Your task to perform on an android device: change timer sound Image 0: 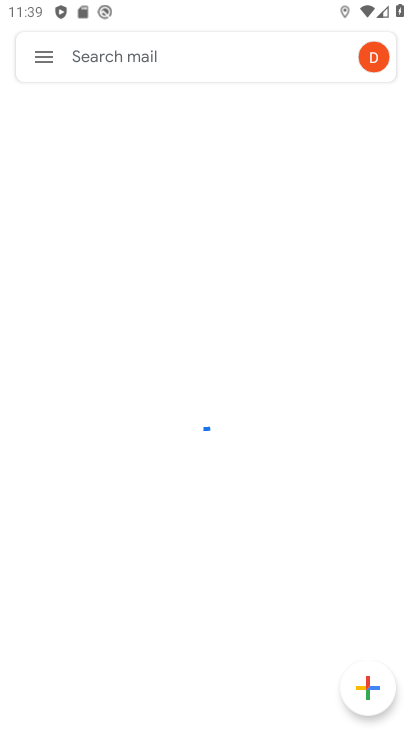
Step 0: press home button
Your task to perform on an android device: change timer sound Image 1: 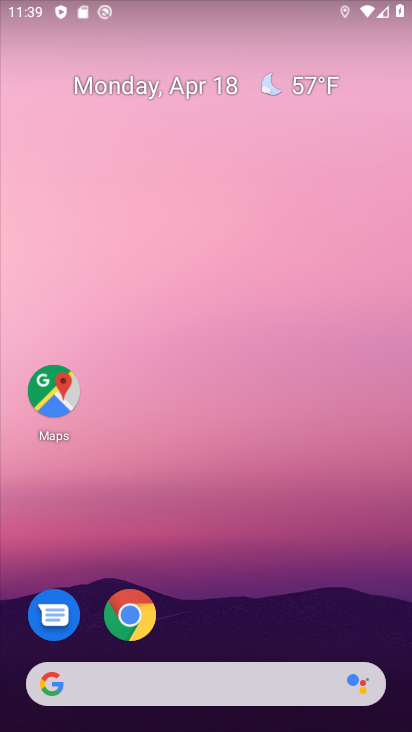
Step 1: drag from (227, 638) to (222, 253)
Your task to perform on an android device: change timer sound Image 2: 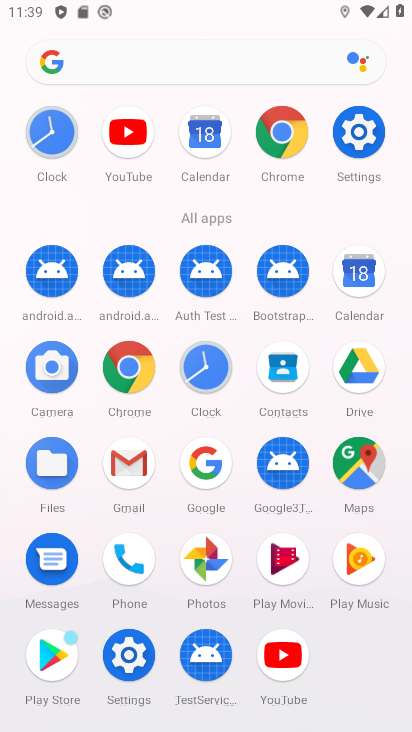
Step 2: click (196, 364)
Your task to perform on an android device: change timer sound Image 3: 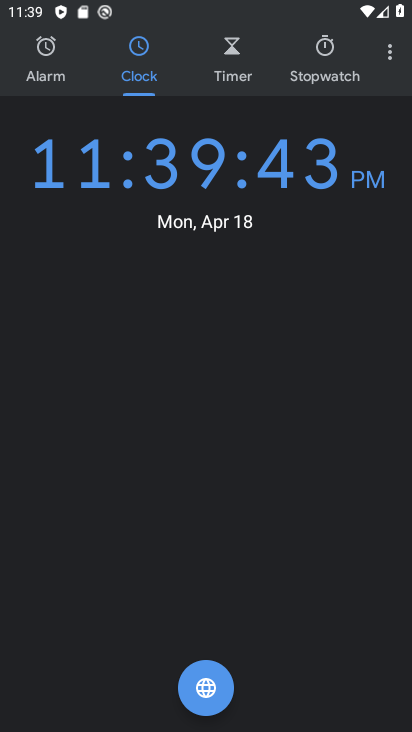
Step 3: click (389, 53)
Your task to perform on an android device: change timer sound Image 4: 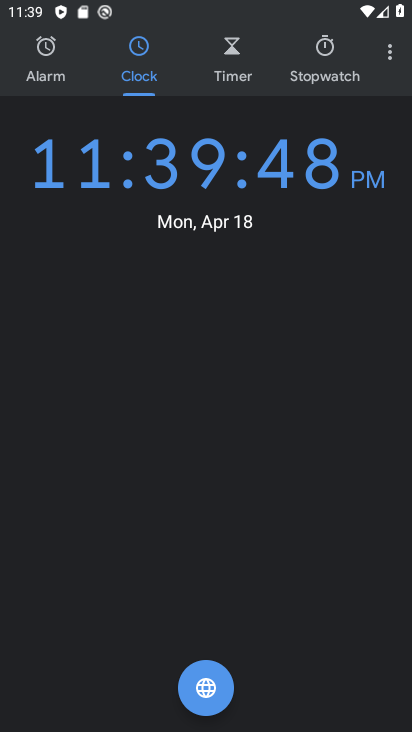
Step 4: click (394, 63)
Your task to perform on an android device: change timer sound Image 5: 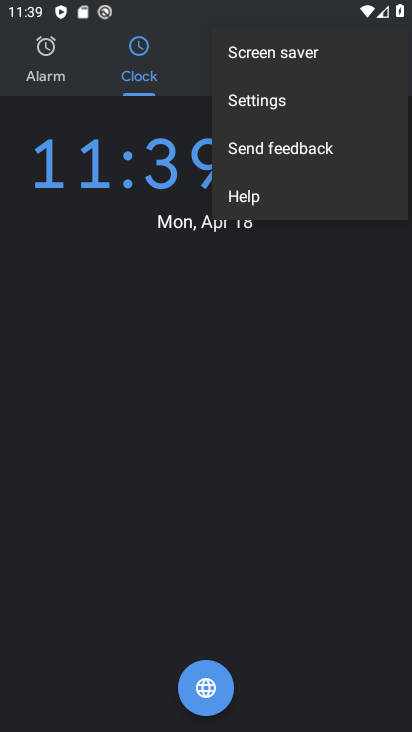
Step 5: click (324, 97)
Your task to perform on an android device: change timer sound Image 6: 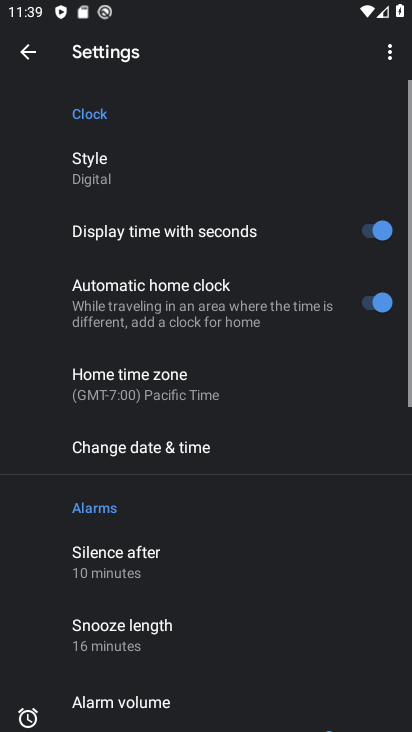
Step 6: drag from (210, 366) to (240, 181)
Your task to perform on an android device: change timer sound Image 7: 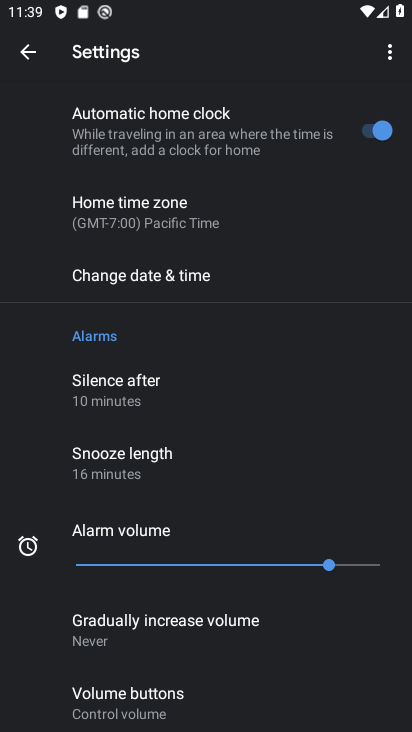
Step 7: drag from (228, 554) to (260, 218)
Your task to perform on an android device: change timer sound Image 8: 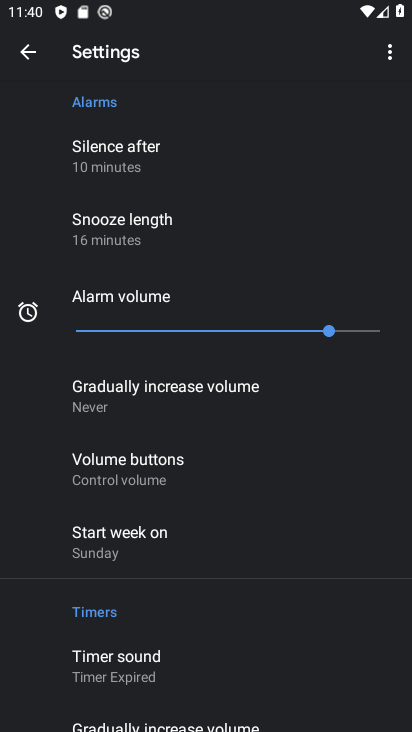
Step 8: click (175, 659)
Your task to perform on an android device: change timer sound Image 9: 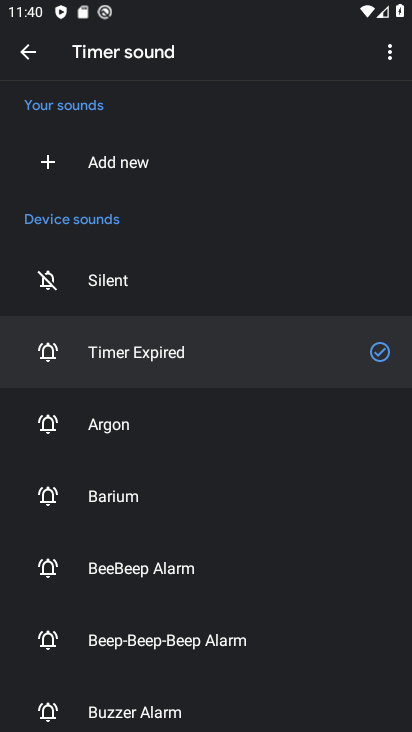
Step 9: click (125, 416)
Your task to perform on an android device: change timer sound Image 10: 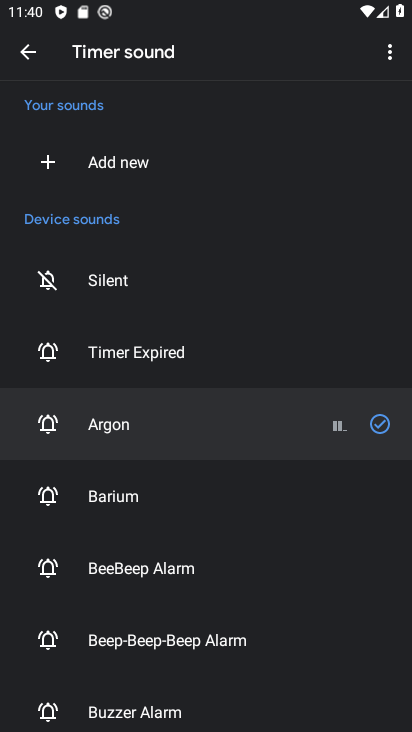
Step 10: task complete